Your task to perform on an android device: find snoozed emails in the gmail app Image 0: 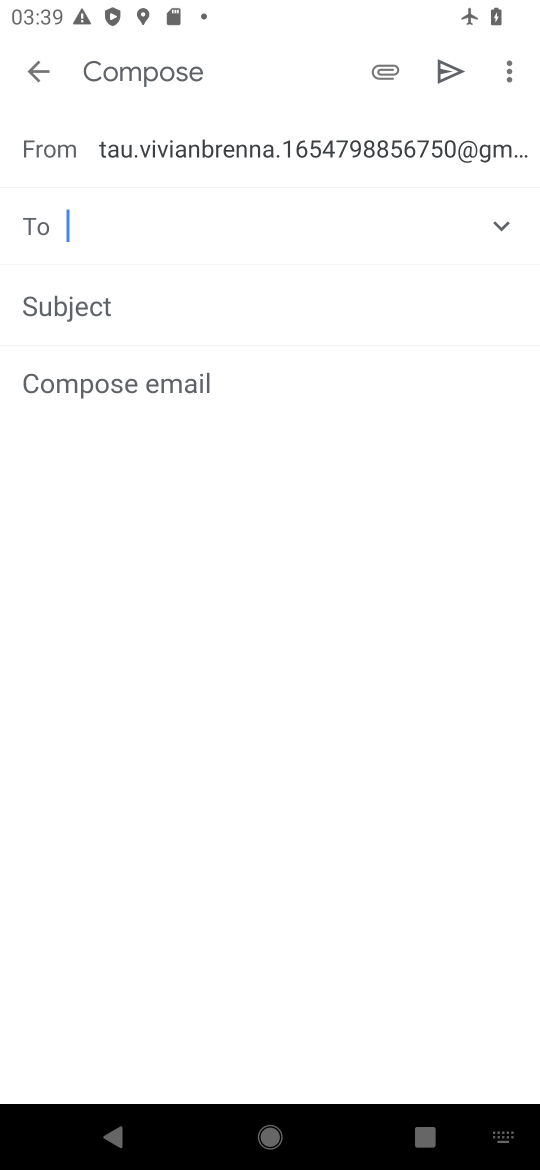
Step 0: press home button
Your task to perform on an android device: find snoozed emails in the gmail app Image 1: 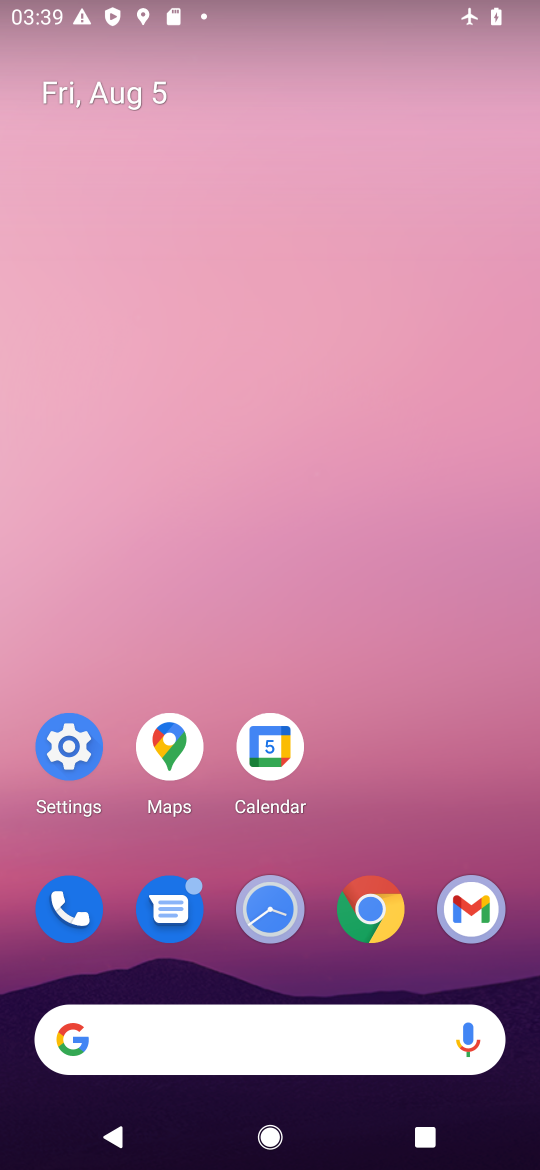
Step 1: click (467, 908)
Your task to perform on an android device: find snoozed emails in the gmail app Image 2: 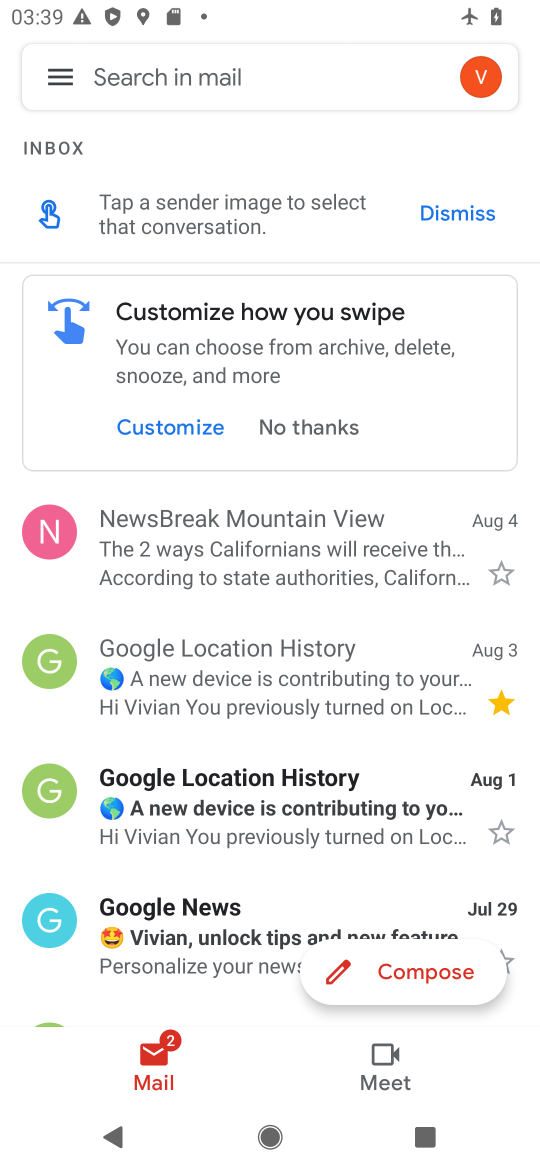
Step 2: click (63, 64)
Your task to perform on an android device: find snoozed emails in the gmail app Image 3: 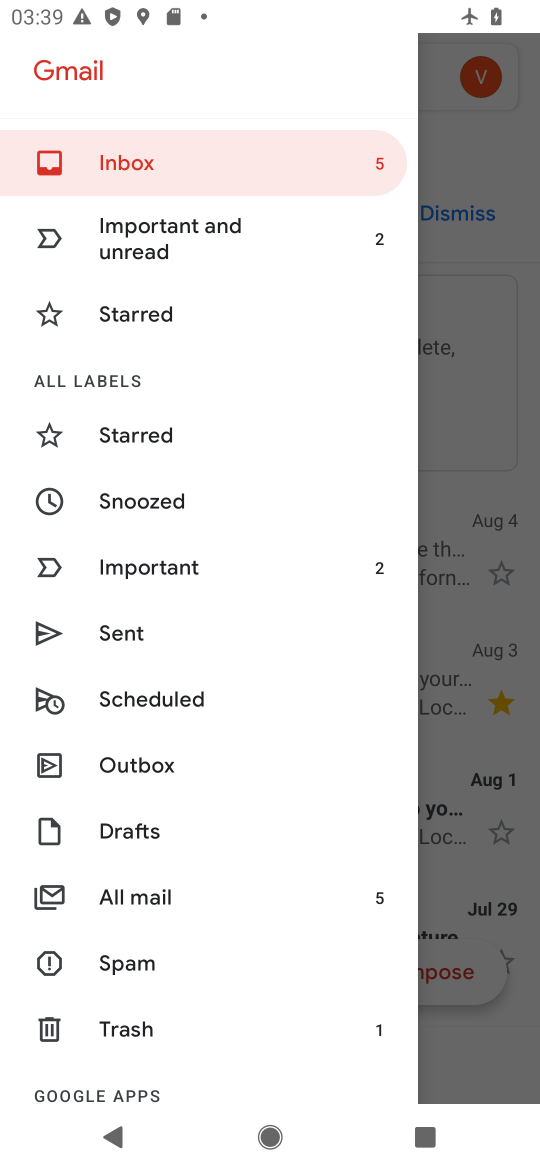
Step 3: click (137, 492)
Your task to perform on an android device: find snoozed emails in the gmail app Image 4: 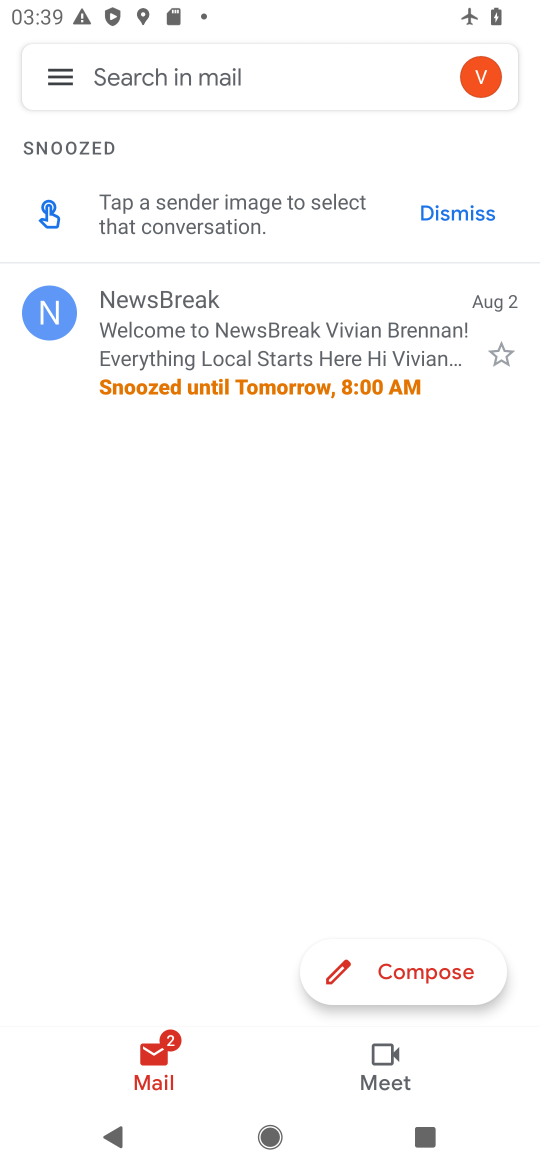
Step 4: task complete